Your task to perform on an android device: Find coffee shops on Maps Image 0: 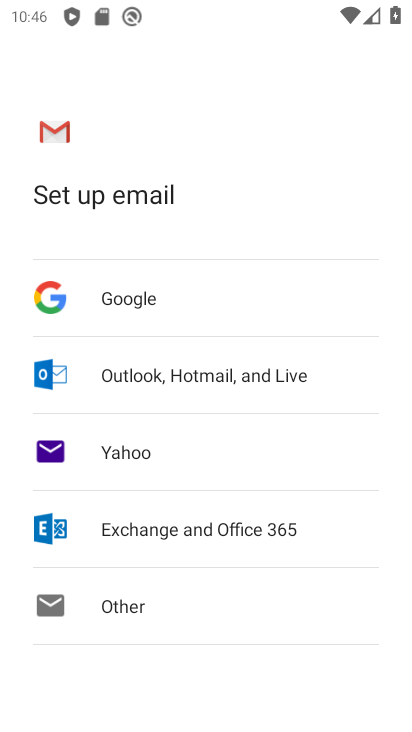
Step 0: press home button
Your task to perform on an android device: Find coffee shops on Maps Image 1: 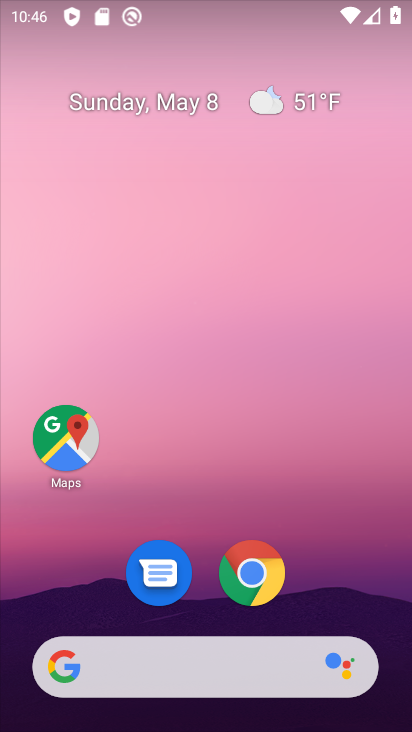
Step 1: click (65, 426)
Your task to perform on an android device: Find coffee shops on Maps Image 2: 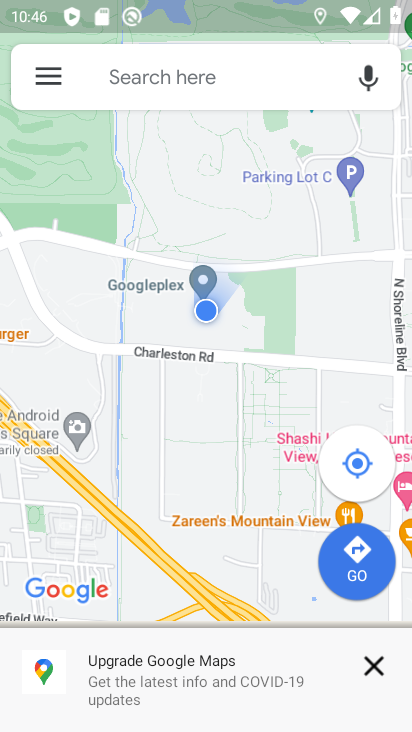
Step 2: click (147, 81)
Your task to perform on an android device: Find coffee shops on Maps Image 3: 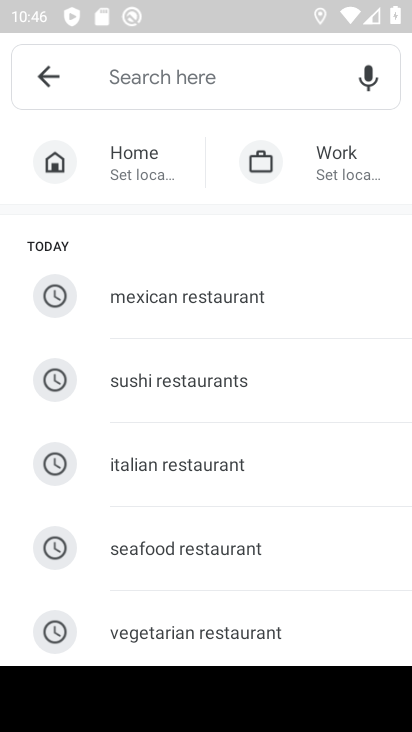
Step 3: drag from (195, 613) to (235, 274)
Your task to perform on an android device: Find coffee shops on Maps Image 4: 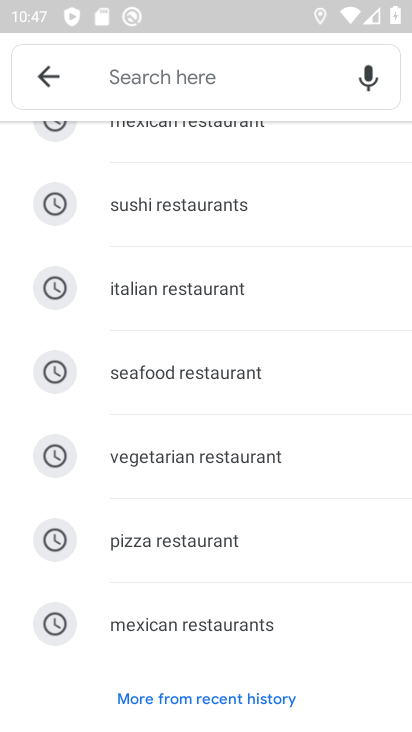
Step 4: type "coffee shopes"
Your task to perform on an android device: Find coffee shops on Maps Image 5: 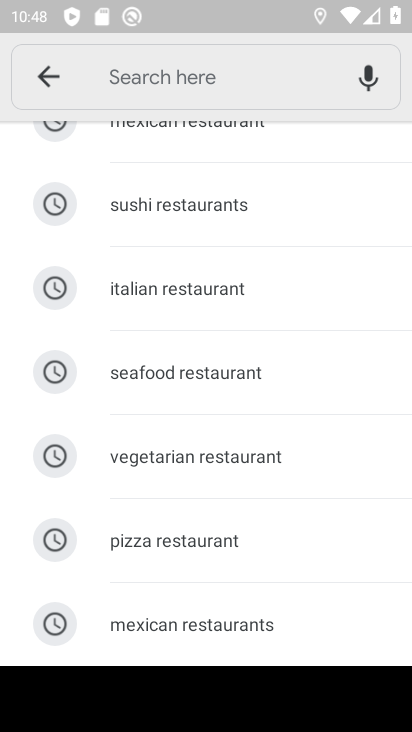
Step 5: type "coffee shopes"
Your task to perform on an android device: Find coffee shops on Maps Image 6: 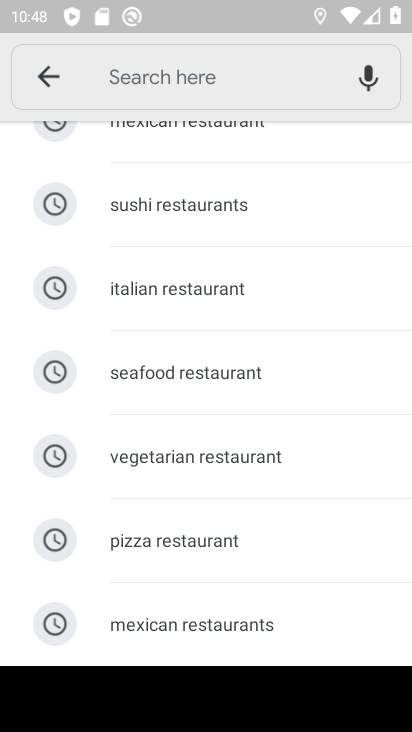
Step 6: drag from (212, 150) to (262, 500)
Your task to perform on an android device: Find coffee shops on Maps Image 7: 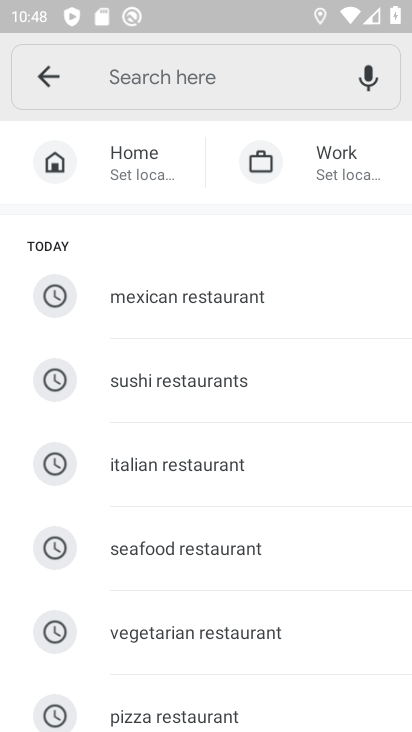
Step 7: click (149, 70)
Your task to perform on an android device: Find coffee shops on Maps Image 8: 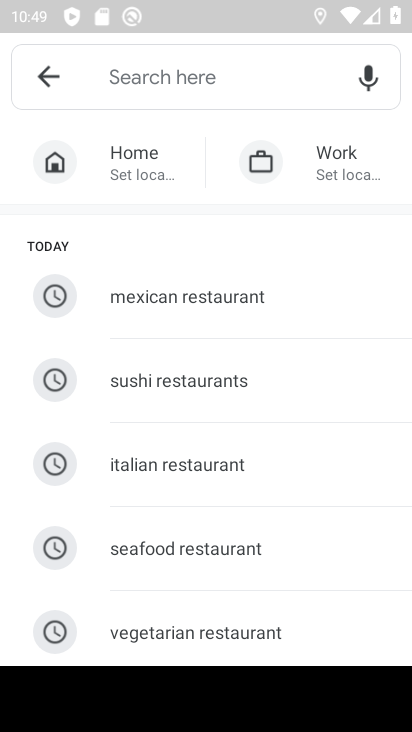
Step 8: type "coffee shopes"
Your task to perform on an android device: Find coffee shops on Maps Image 9: 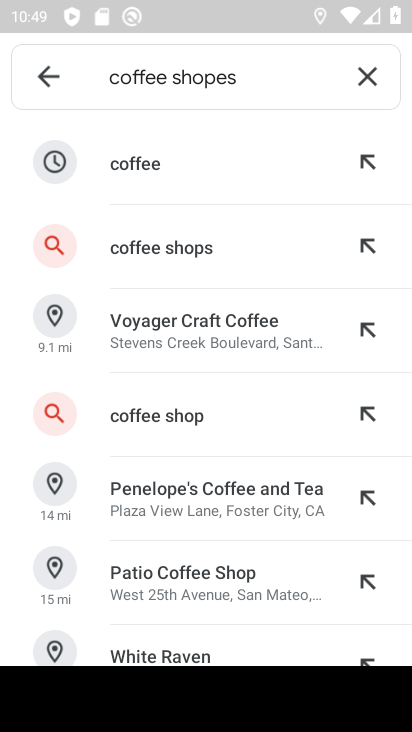
Step 9: click (208, 240)
Your task to perform on an android device: Find coffee shops on Maps Image 10: 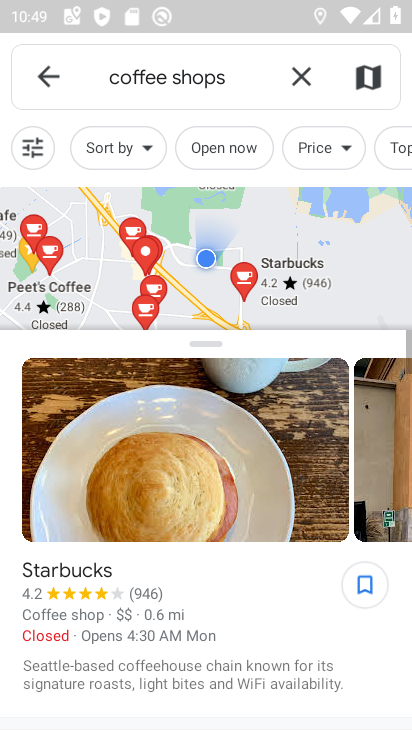
Step 10: task complete